Your task to perform on an android device: change the clock display to analog Image 0: 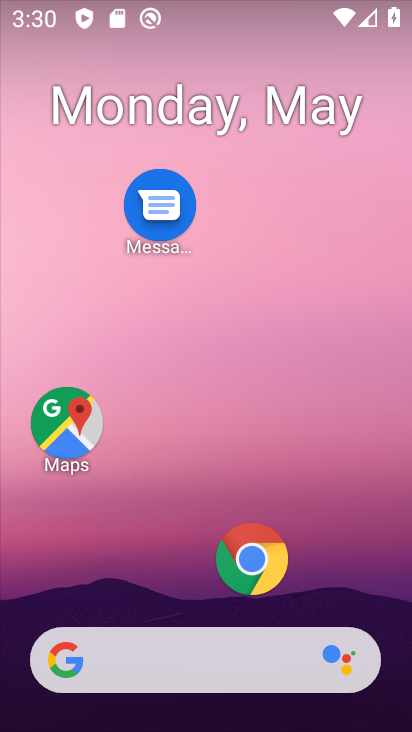
Step 0: drag from (111, 571) to (145, 143)
Your task to perform on an android device: change the clock display to analog Image 1: 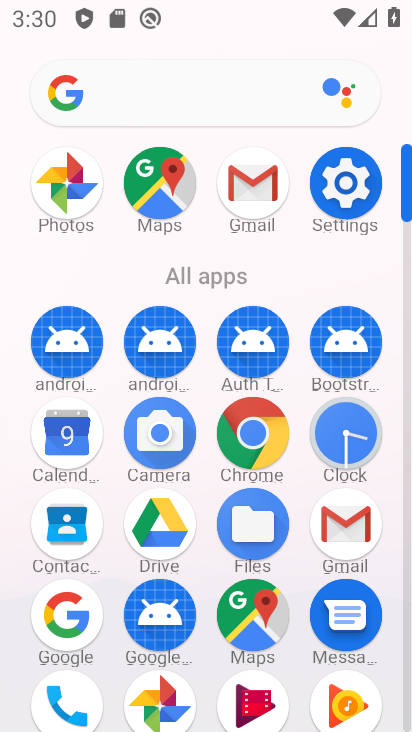
Step 1: click (350, 431)
Your task to perform on an android device: change the clock display to analog Image 2: 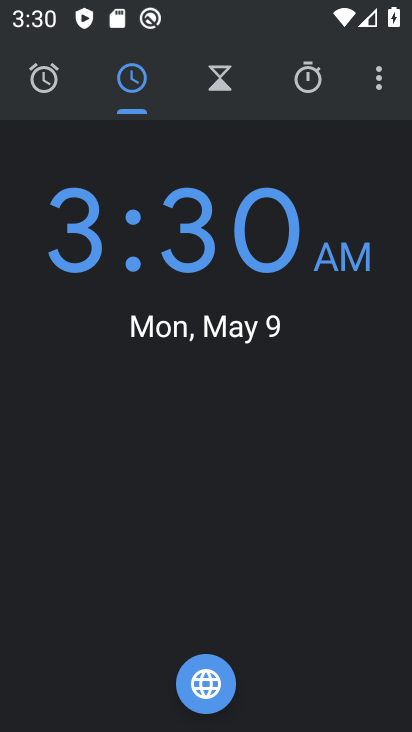
Step 2: click (378, 76)
Your task to perform on an android device: change the clock display to analog Image 3: 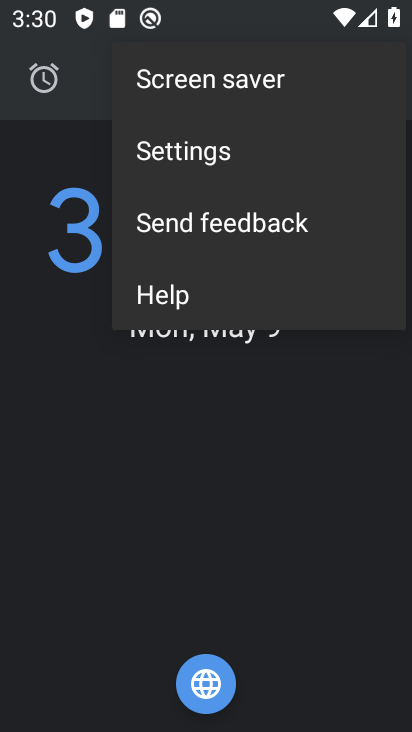
Step 3: click (212, 159)
Your task to perform on an android device: change the clock display to analog Image 4: 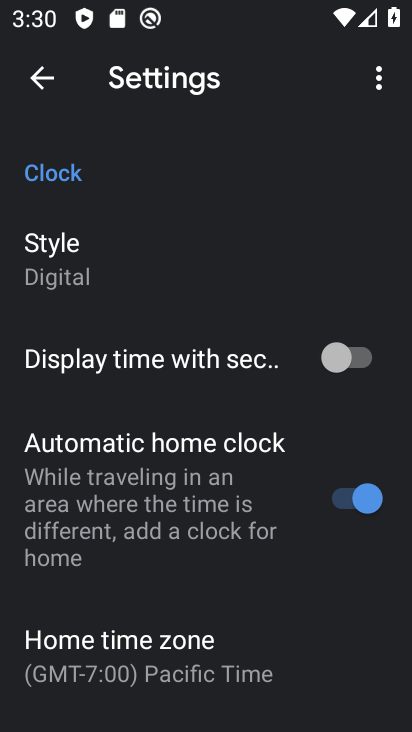
Step 4: click (91, 265)
Your task to perform on an android device: change the clock display to analog Image 5: 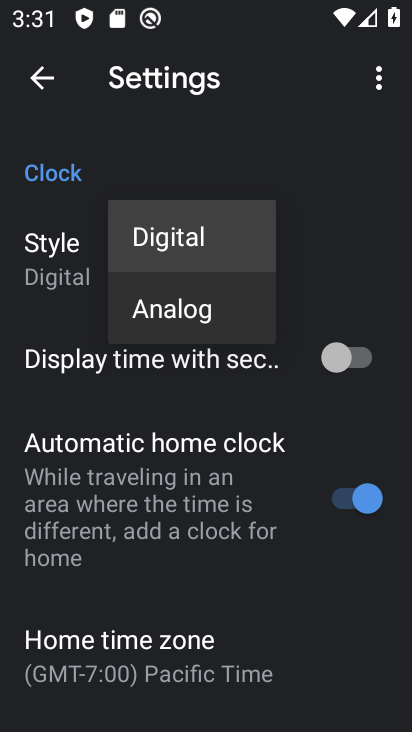
Step 5: click (192, 308)
Your task to perform on an android device: change the clock display to analog Image 6: 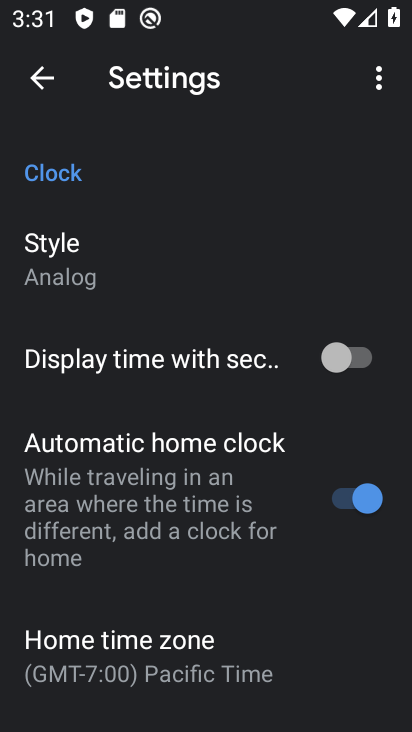
Step 6: task complete